Your task to perform on an android device: What's the weather going to be this weekend? Image 0: 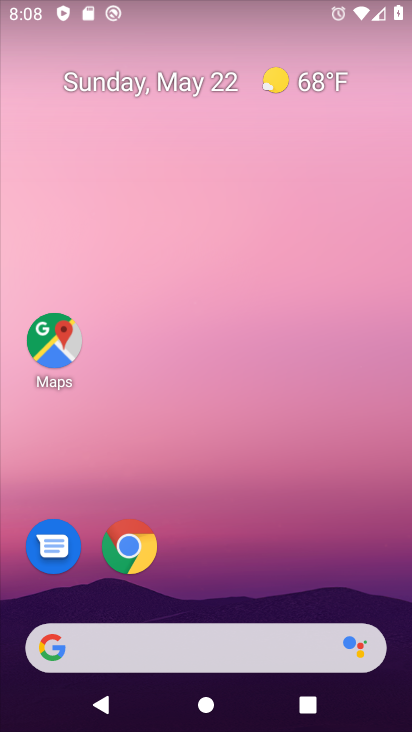
Step 0: drag from (261, 706) to (187, 88)
Your task to perform on an android device: What's the weather going to be this weekend? Image 1: 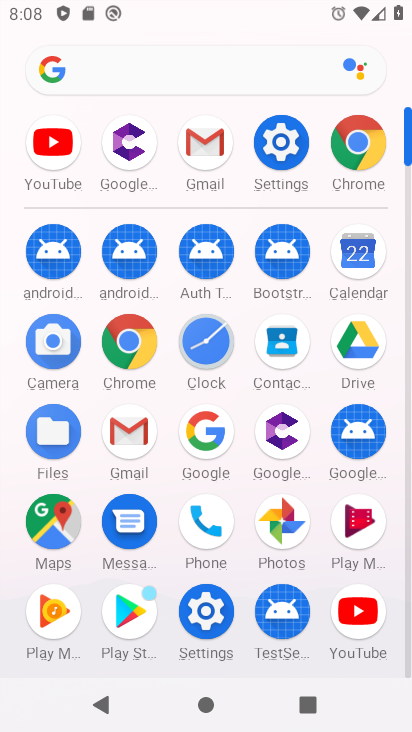
Step 1: press back button
Your task to perform on an android device: What's the weather going to be this weekend? Image 2: 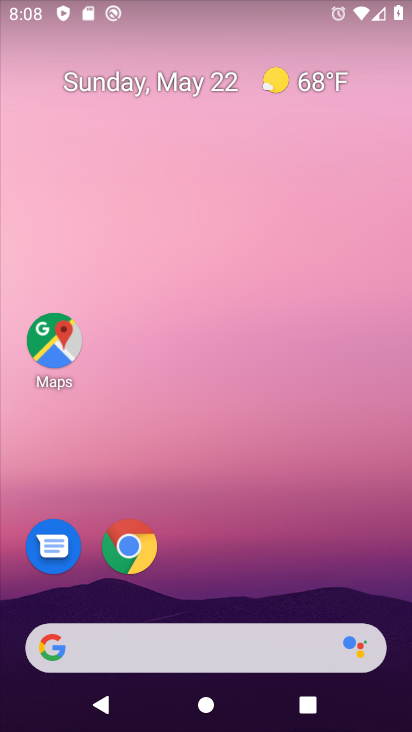
Step 2: drag from (159, 256) to (395, 274)
Your task to perform on an android device: What's the weather going to be this weekend? Image 3: 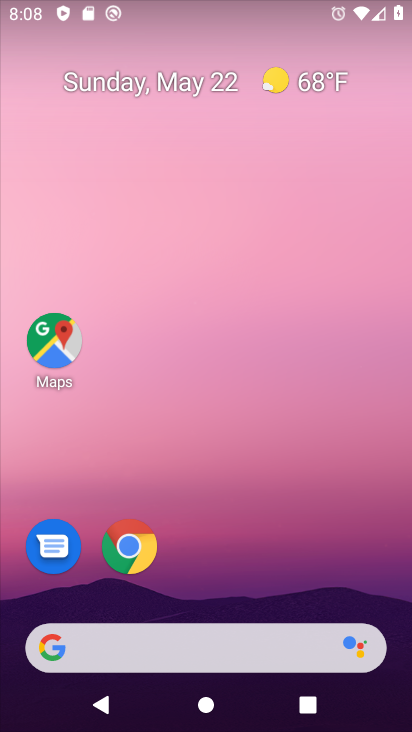
Step 3: drag from (225, 308) to (410, 302)
Your task to perform on an android device: What's the weather going to be this weekend? Image 4: 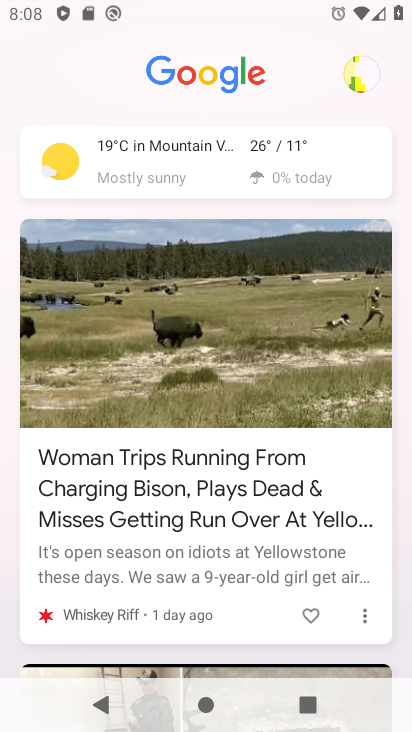
Step 4: click (213, 156)
Your task to perform on an android device: What's the weather going to be this weekend? Image 5: 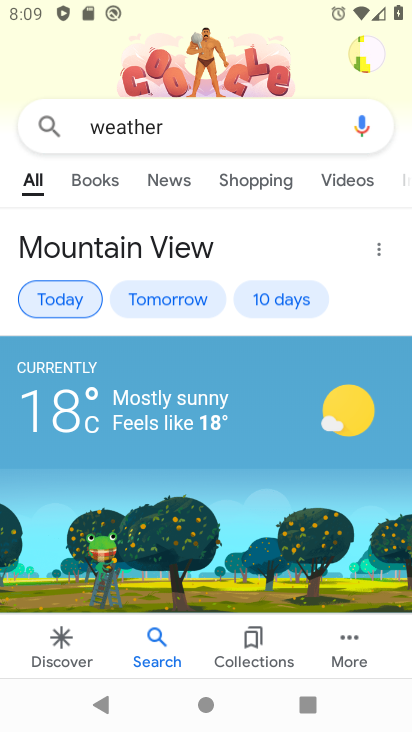
Step 5: click (163, 295)
Your task to perform on an android device: What's the weather going to be this weekend? Image 6: 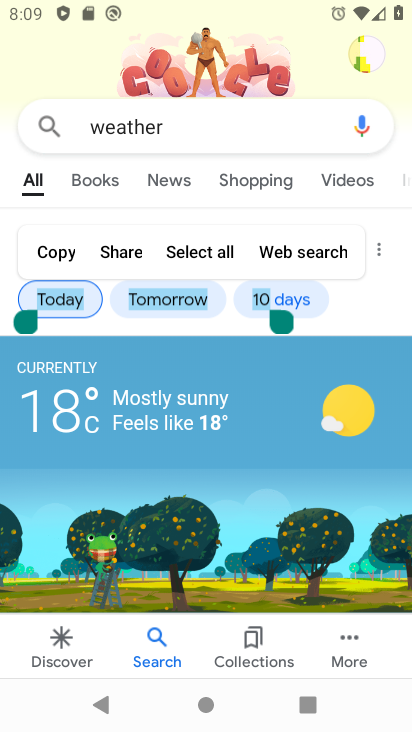
Step 6: task complete